Your task to perform on an android device: Go to Wikipedia Image 0: 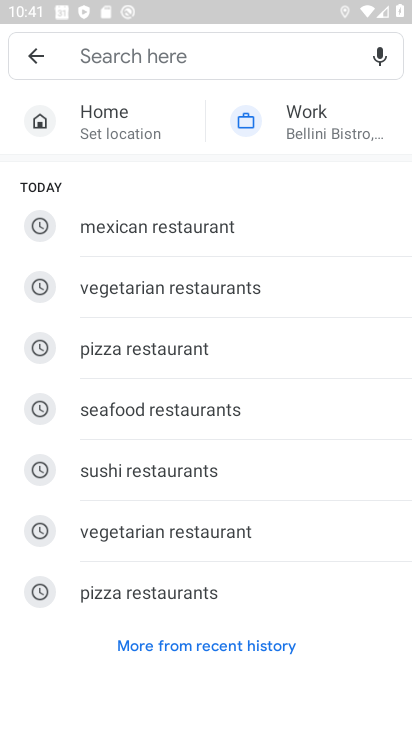
Step 0: press home button
Your task to perform on an android device: Go to Wikipedia Image 1: 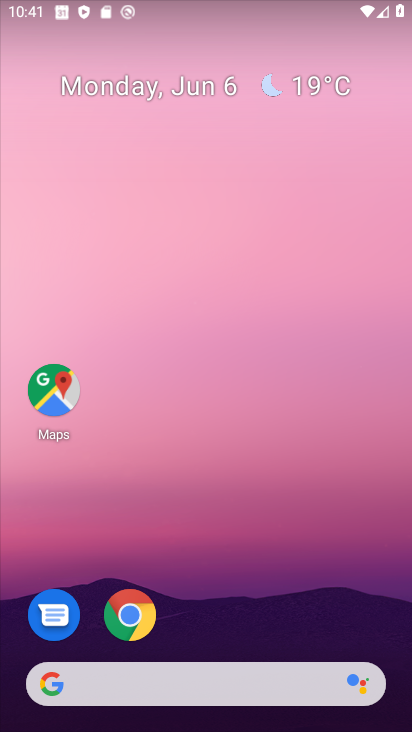
Step 1: click (190, 681)
Your task to perform on an android device: Go to Wikipedia Image 2: 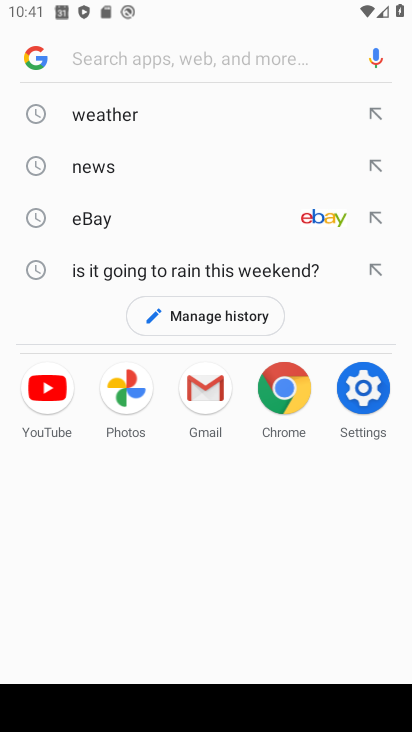
Step 2: type "wikipedia"
Your task to perform on an android device: Go to Wikipedia Image 3: 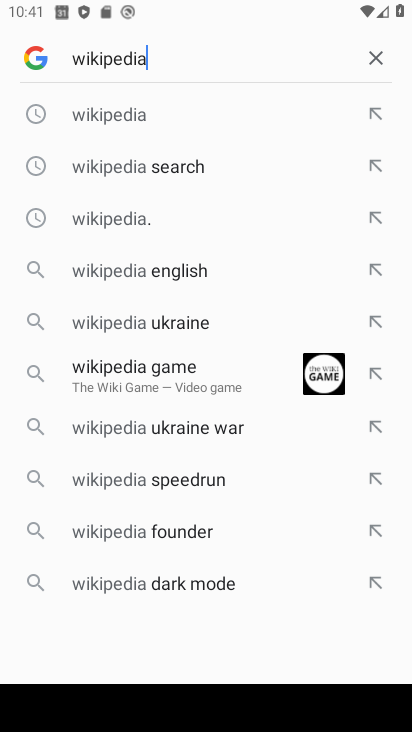
Step 3: click (148, 113)
Your task to perform on an android device: Go to Wikipedia Image 4: 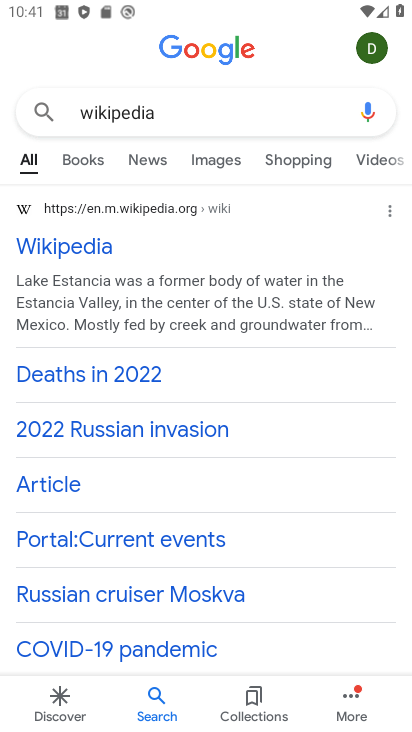
Step 4: click (109, 255)
Your task to perform on an android device: Go to Wikipedia Image 5: 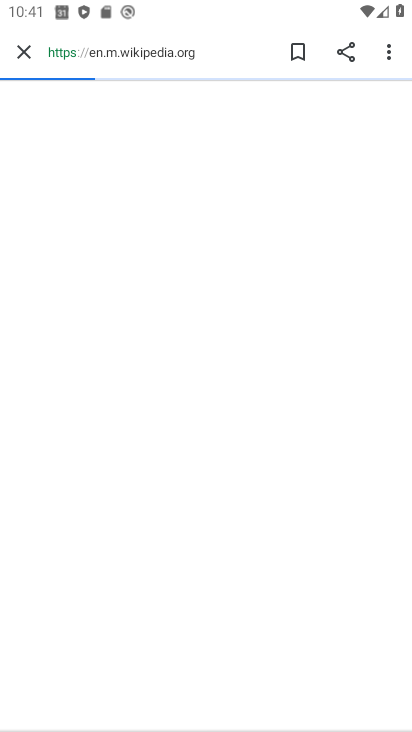
Step 5: task complete